Your task to perform on an android device: Show me recent news Image 0: 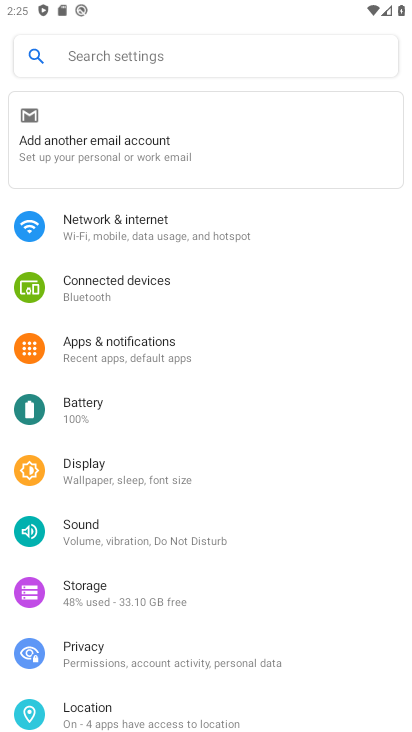
Step 0: press home button
Your task to perform on an android device: Show me recent news Image 1: 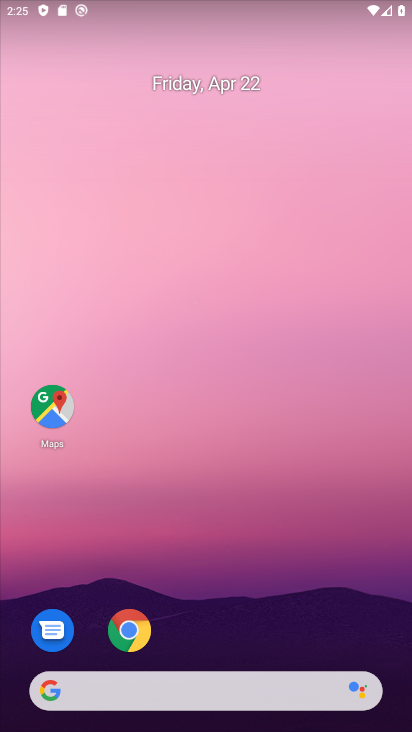
Step 1: task complete